Your task to perform on an android device: turn on the 12-hour format for clock Image 0: 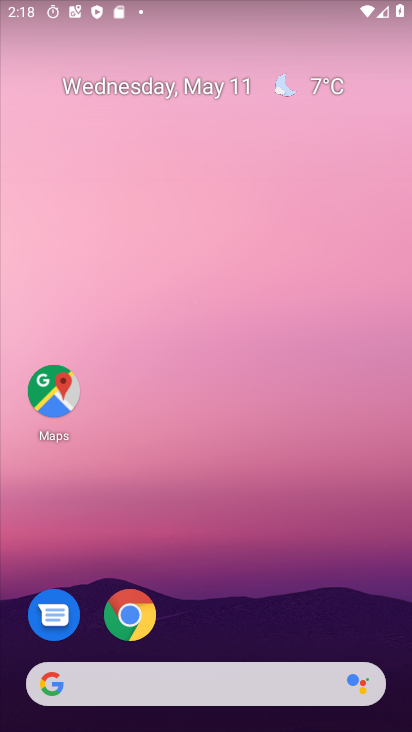
Step 0: drag from (178, 567) to (160, 177)
Your task to perform on an android device: turn on the 12-hour format for clock Image 1: 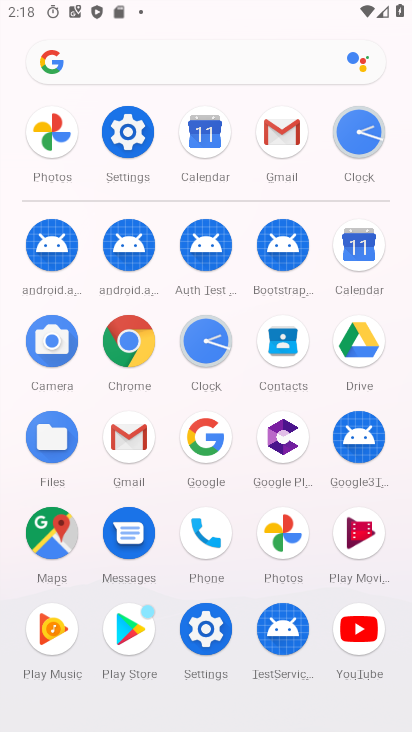
Step 1: click (124, 138)
Your task to perform on an android device: turn on the 12-hour format for clock Image 2: 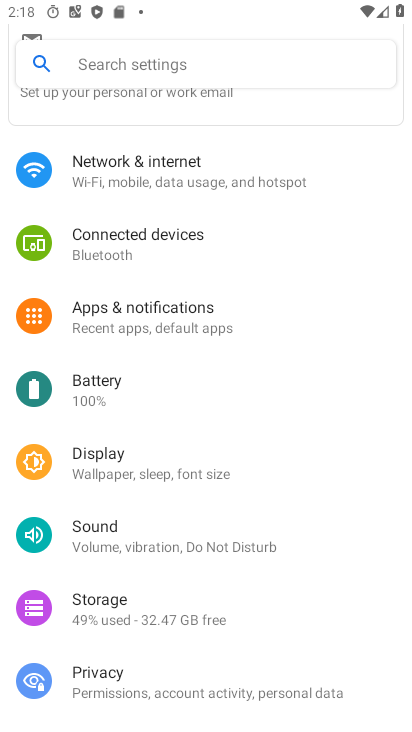
Step 2: drag from (241, 610) to (249, 108)
Your task to perform on an android device: turn on the 12-hour format for clock Image 3: 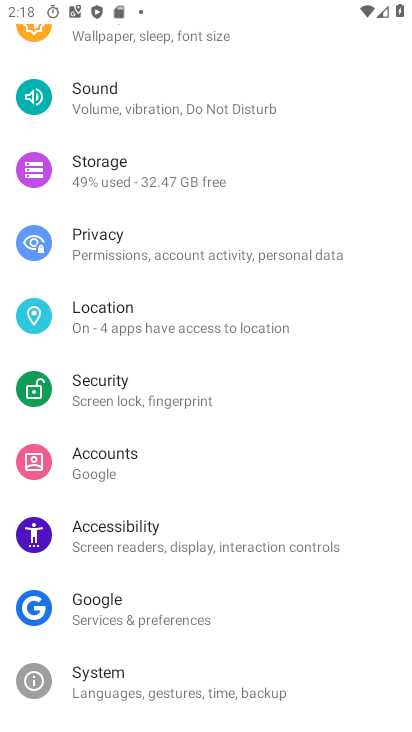
Step 3: click (125, 685)
Your task to perform on an android device: turn on the 12-hour format for clock Image 4: 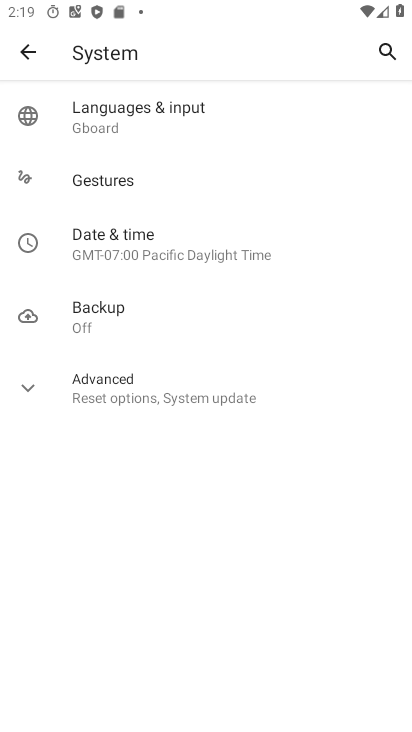
Step 4: click (122, 237)
Your task to perform on an android device: turn on the 12-hour format for clock Image 5: 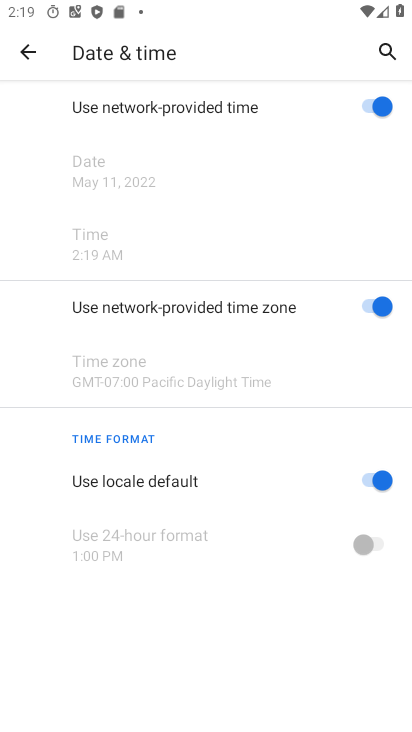
Step 5: task complete